Your task to perform on an android device: change the clock display to digital Image 0: 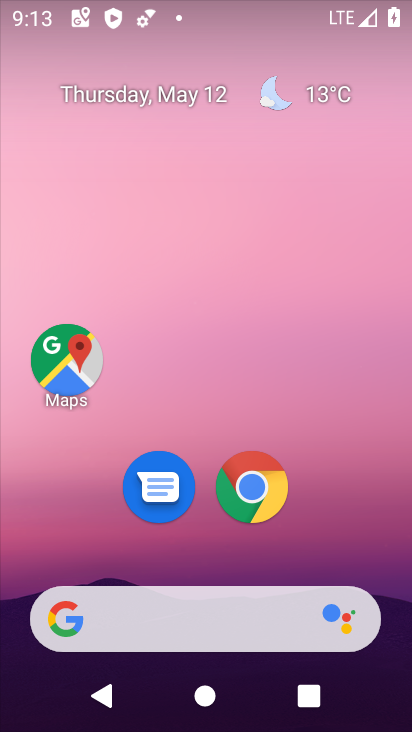
Step 0: drag from (368, 502) to (312, 17)
Your task to perform on an android device: change the clock display to digital Image 1: 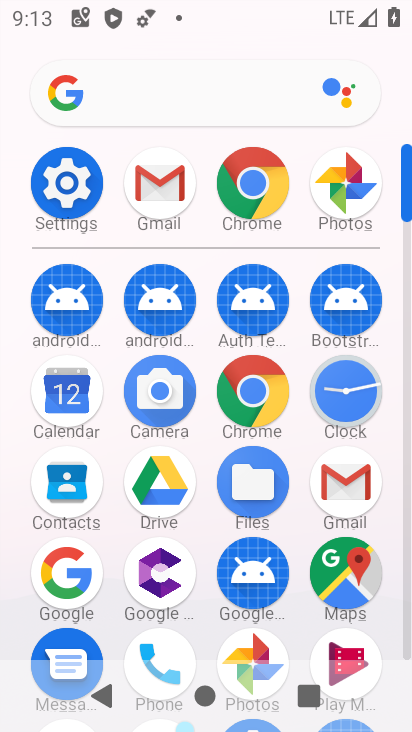
Step 1: click (343, 392)
Your task to perform on an android device: change the clock display to digital Image 2: 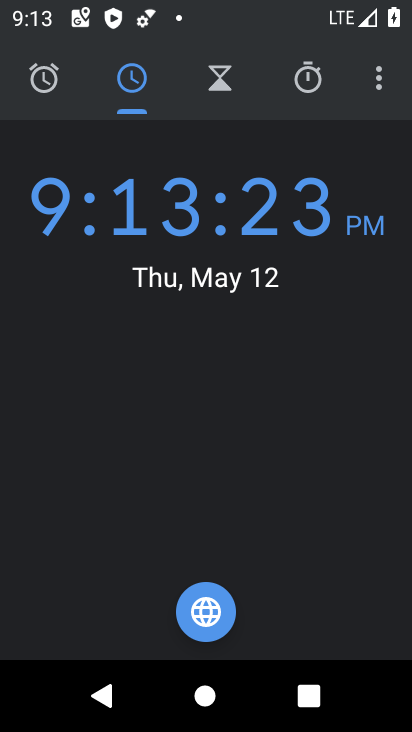
Step 2: click (378, 78)
Your task to perform on an android device: change the clock display to digital Image 3: 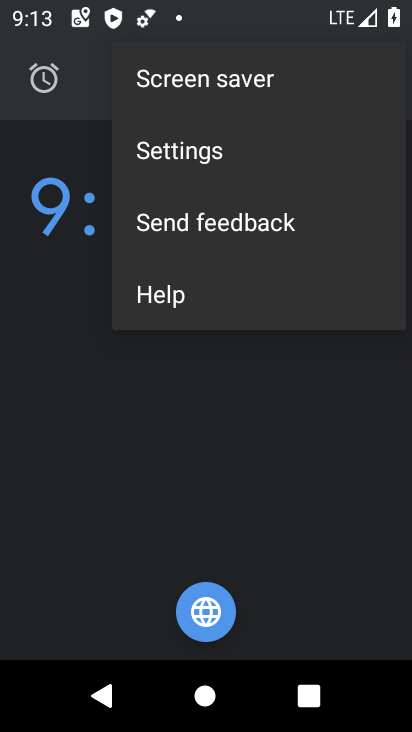
Step 3: click (180, 156)
Your task to perform on an android device: change the clock display to digital Image 4: 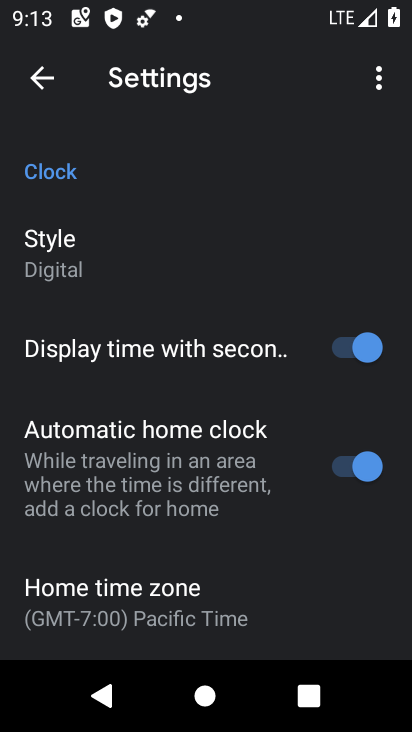
Step 4: task complete